Your task to perform on an android device: empty trash in the gmail app Image 0: 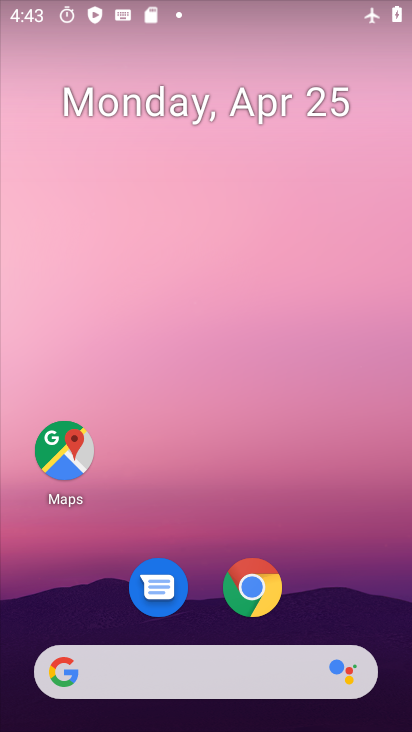
Step 0: drag from (276, 199) to (235, 2)
Your task to perform on an android device: empty trash in the gmail app Image 1: 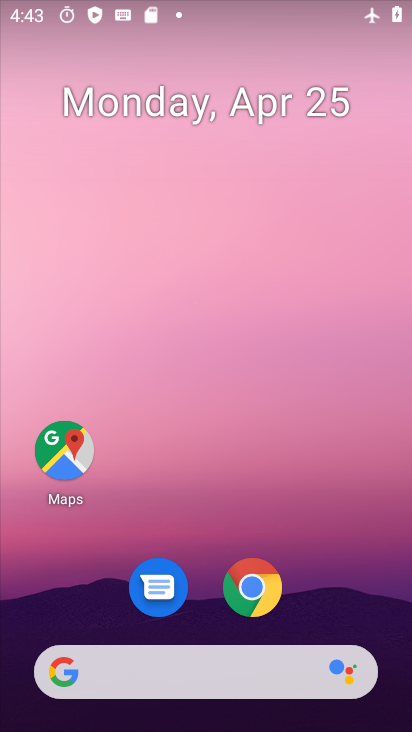
Step 1: drag from (336, 580) to (255, 131)
Your task to perform on an android device: empty trash in the gmail app Image 2: 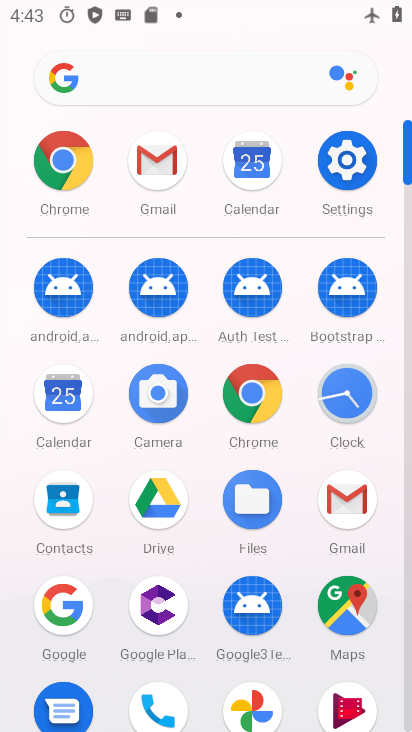
Step 2: click (156, 156)
Your task to perform on an android device: empty trash in the gmail app Image 3: 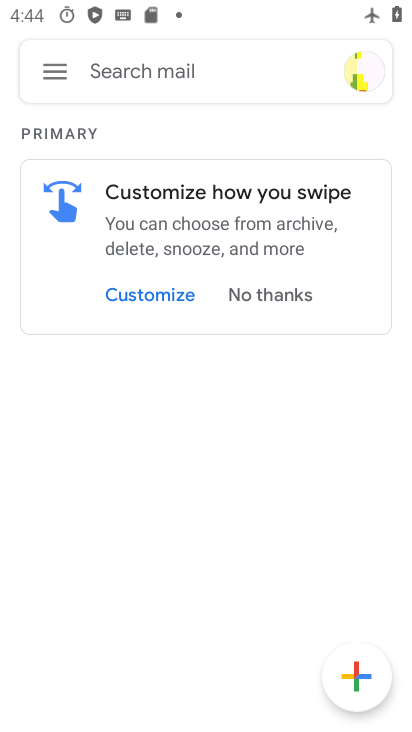
Step 3: click (53, 71)
Your task to perform on an android device: empty trash in the gmail app Image 4: 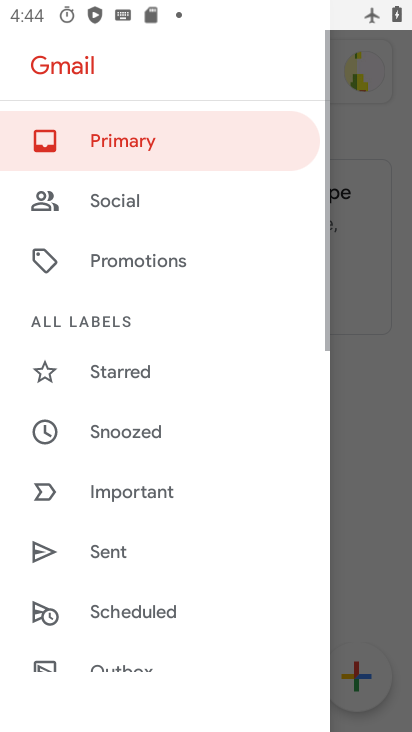
Step 4: drag from (117, 605) to (198, 66)
Your task to perform on an android device: empty trash in the gmail app Image 5: 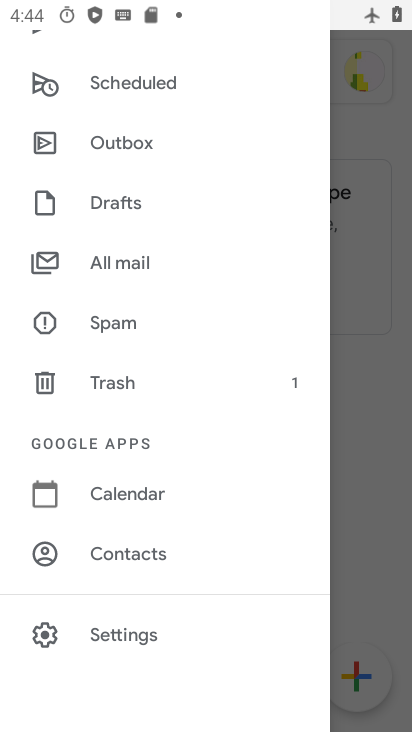
Step 5: click (104, 381)
Your task to perform on an android device: empty trash in the gmail app Image 6: 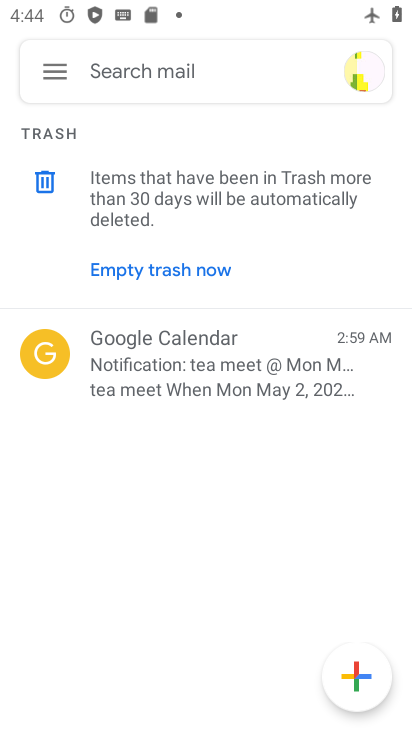
Step 6: click (35, 187)
Your task to perform on an android device: empty trash in the gmail app Image 7: 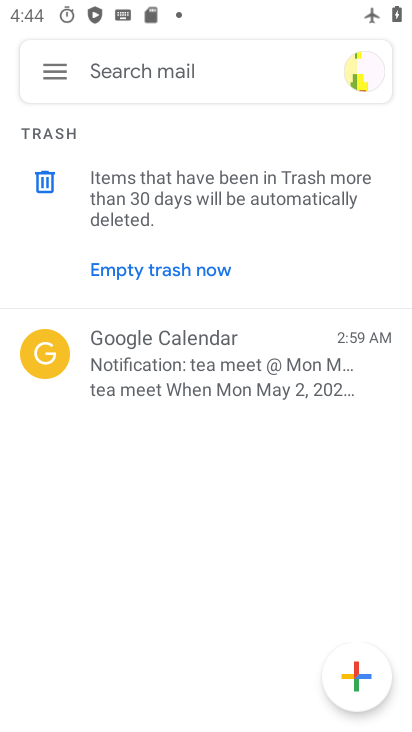
Step 7: click (134, 273)
Your task to perform on an android device: empty trash in the gmail app Image 8: 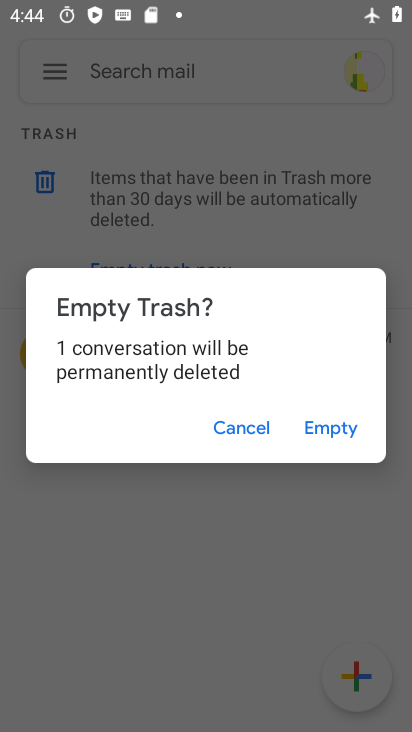
Step 8: click (337, 441)
Your task to perform on an android device: empty trash in the gmail app Image 9: 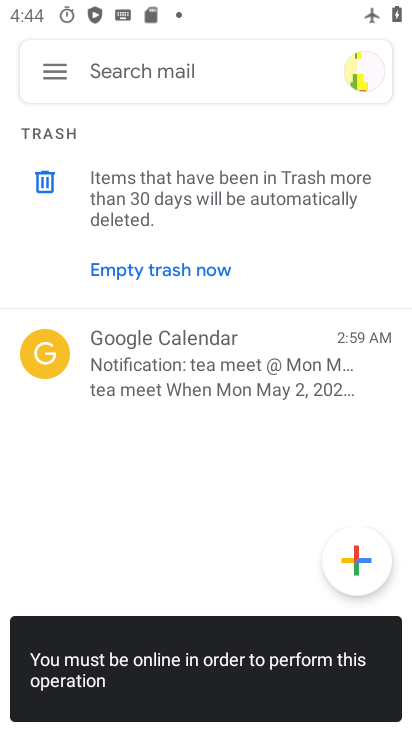
Step 9: task complete